Your task to perform on an android device: Open Google Chrome Image 0: 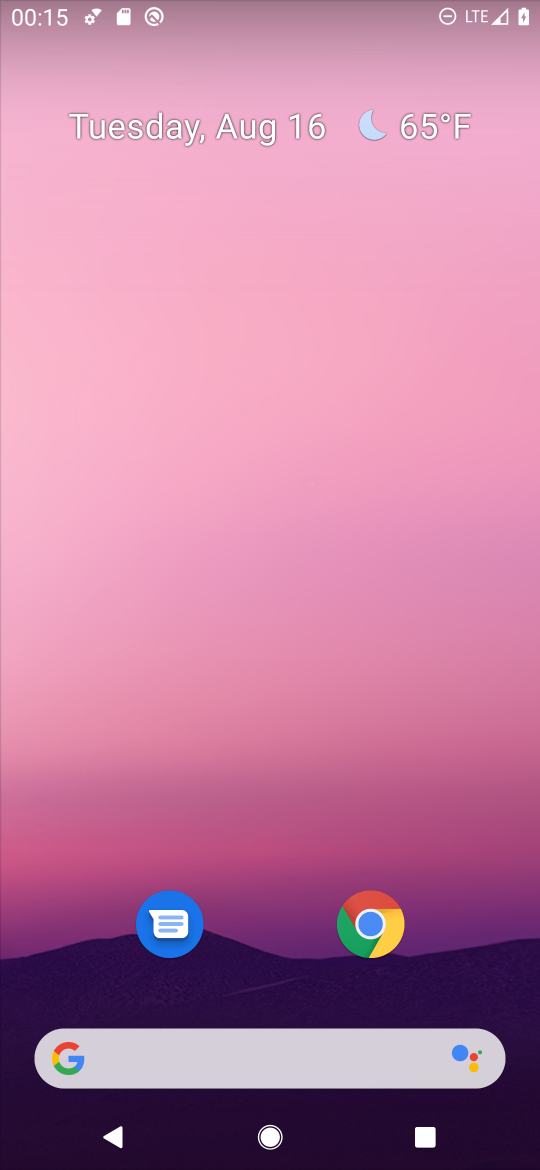
Step 0: click (379, 934)
Your task to perform on an android device: Open Google Chrome Image 1: 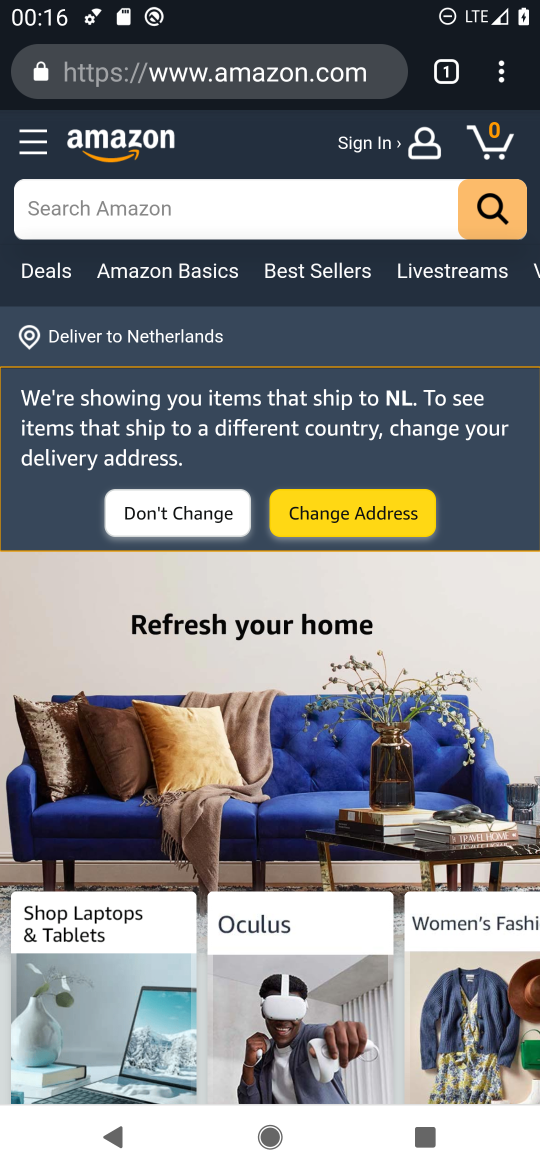
Step 1: task complete